Your task to perform on an android device: empty trash in the gmail app Image 0: 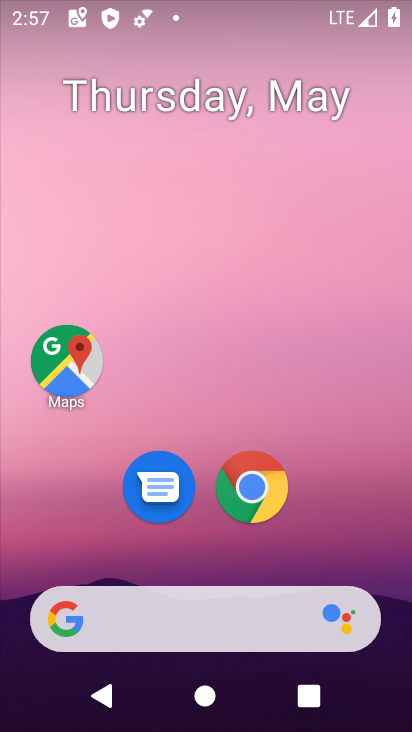
Step 0: drag from (297, 574) to (302, 151)
Your task to perform on an android device: empty trash in the gmail app Image 1: 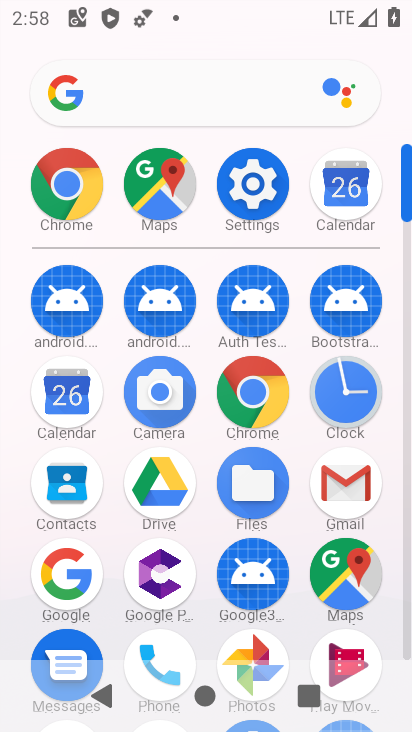
Step 1: drag from (221, 516) to (273, 187)
Your task to perform on an android device: empty trash in the gmail app Image 2: 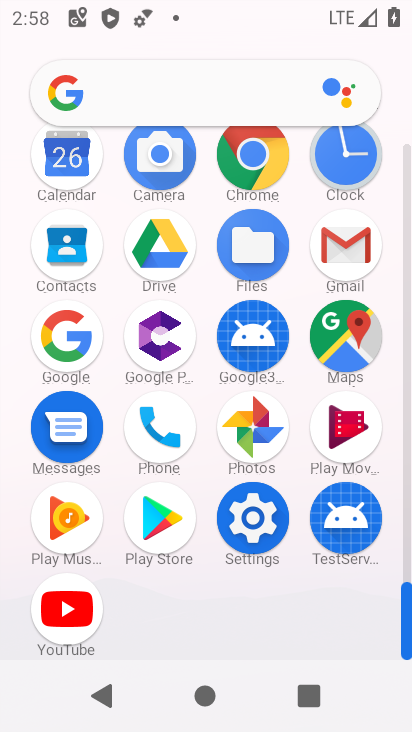
Step 2: click (347, 264)
Your task to perform on an android device: empty trash in the gmail app Image 3: 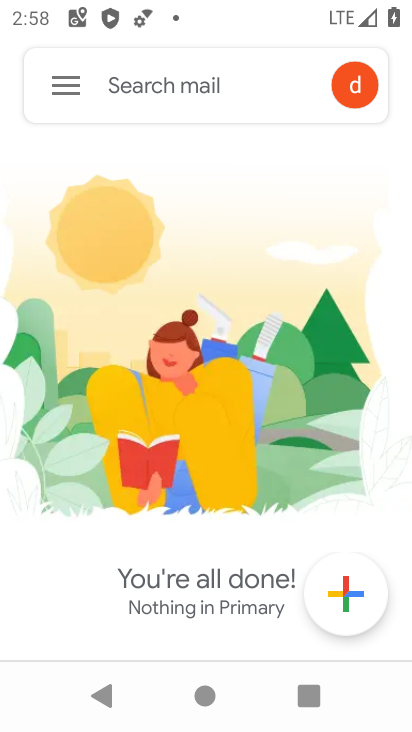
Step 3: click (69, 82)
Your task to perform on an android device: empty trash in the gmail app Image 4: 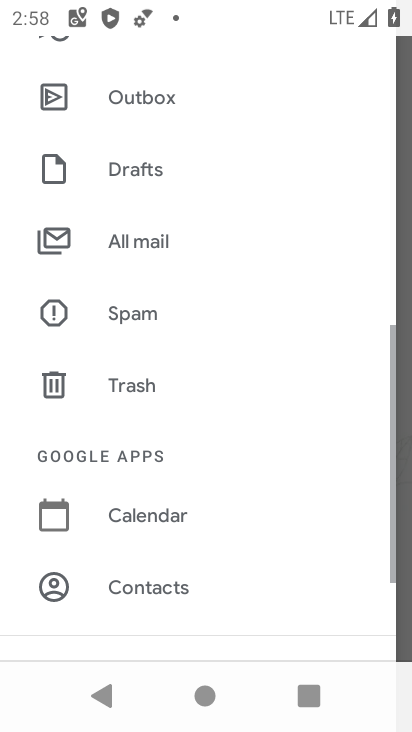
Step 4: drag from (166, 538) to (227, 219)
Your task to perform on an android device: empty trash in the gmail app Image 5: 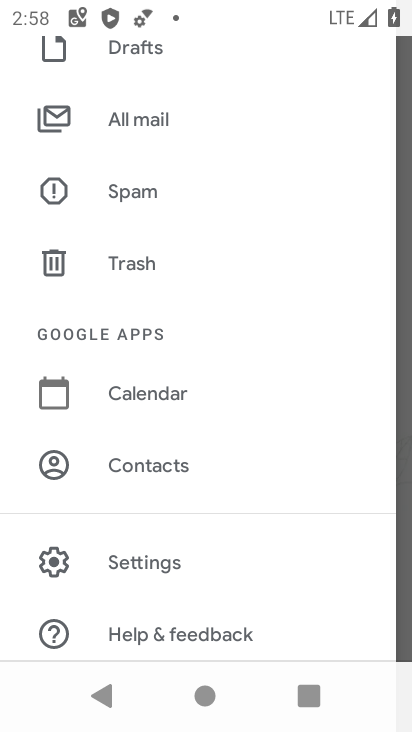
Step 5: click (147, 266)
Your task to perform on an android device: empty trash in the gmail app Image 6: 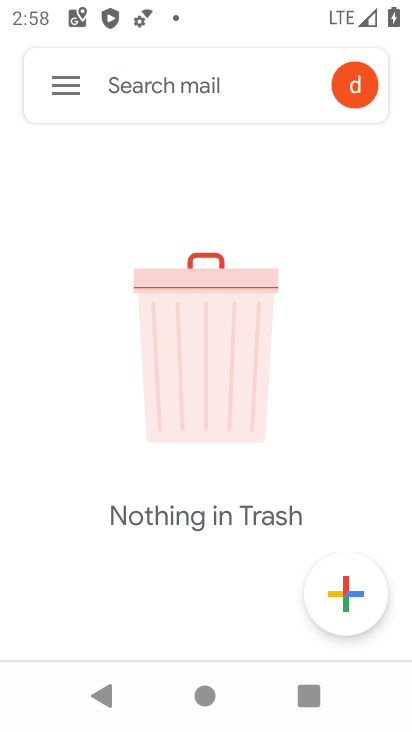
Step 6: task complete